Your task to perform on an android device: Open Android settings Image 0: 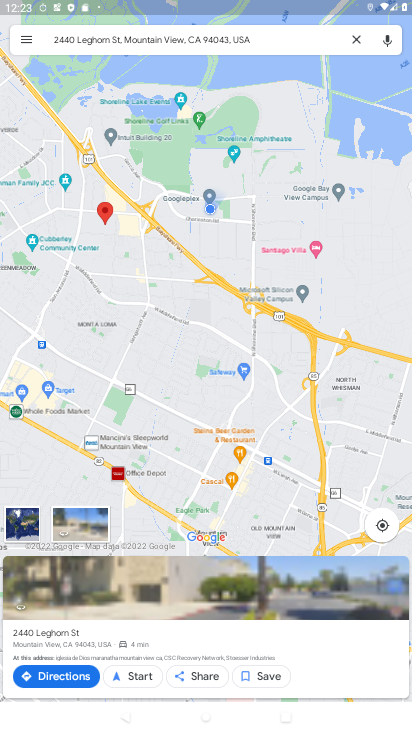
Step 0: press back button
Your task to perform on an android device: Open Android settings Image 1: 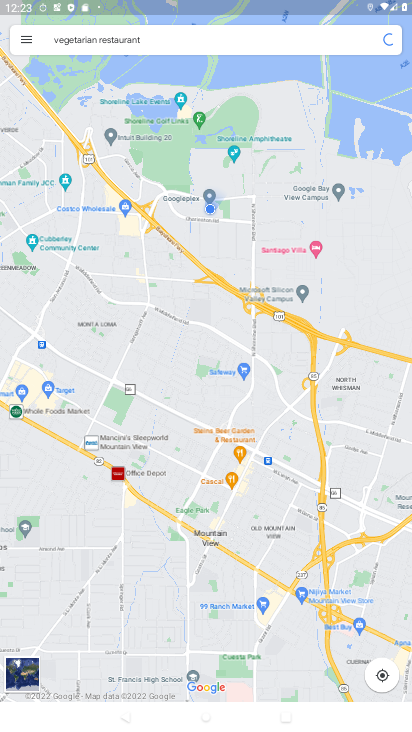
Step 1: press back button
Your task to perform on an android device: Open Android settings Image 2: 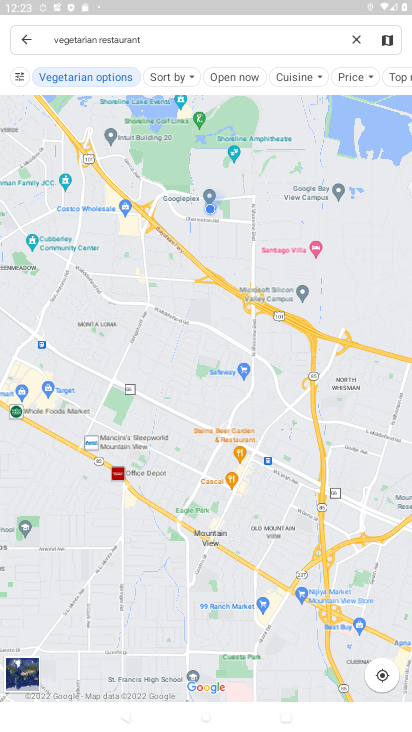
Step 2: press back button
Your task to perform on an android device: Open Android settings Image 3: 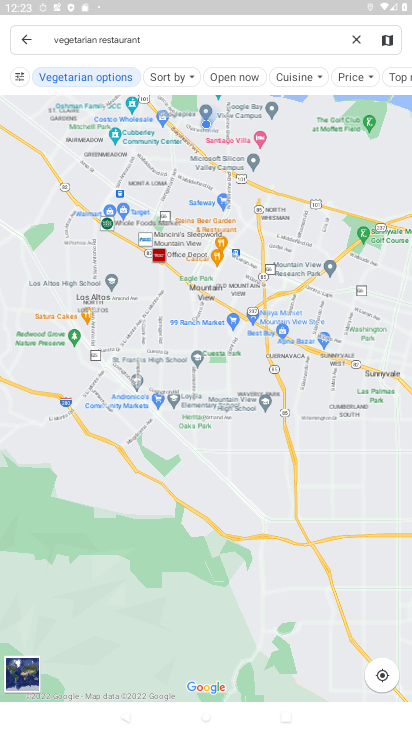
Step 3: press home button
Your task to perform on an android device: Open Android settings Image 4: 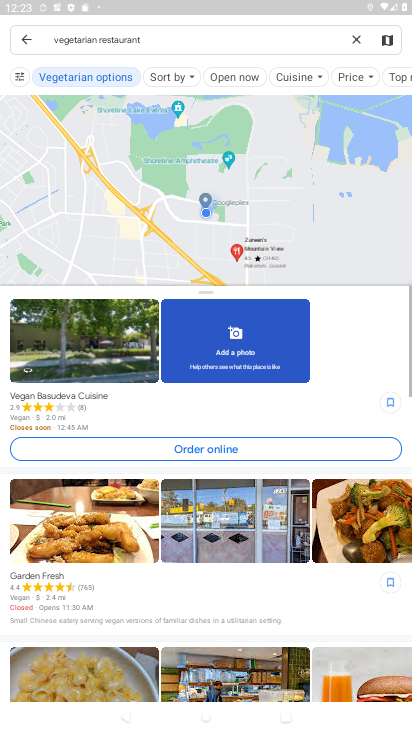
Step 4: click (222, 174)
Your task to perform on an android device: Open Android settings Image 5: 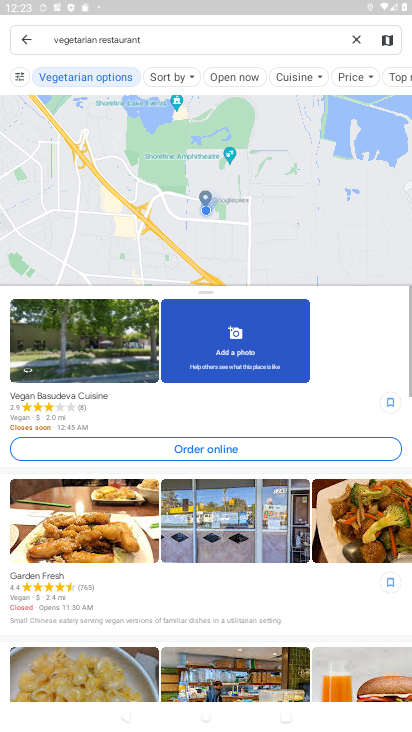
Step 5: press back button
Your task to perform on an android device: Open Android settings Image 6: 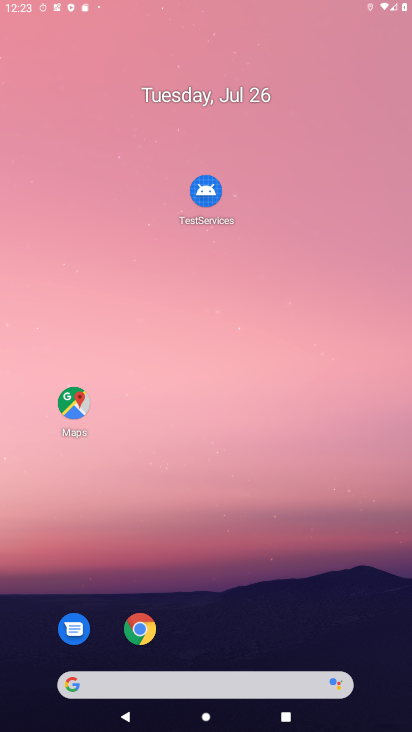
Step 6: press back button
Your task to perform on an android device: Open Android settings Image 7: 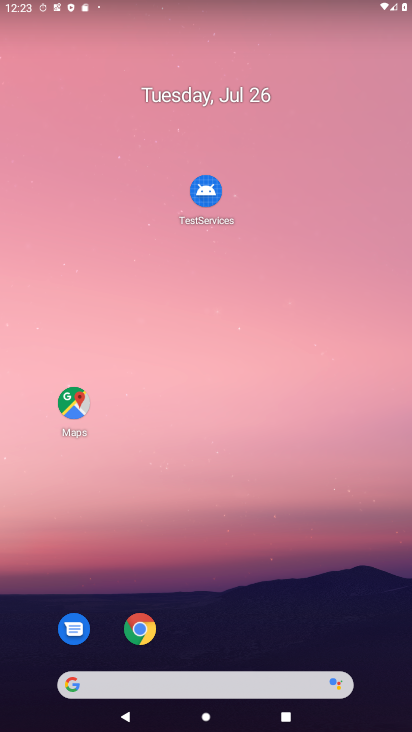
Step 7: press back button
Your task to perform on an android device: Open Android settings Image 8: 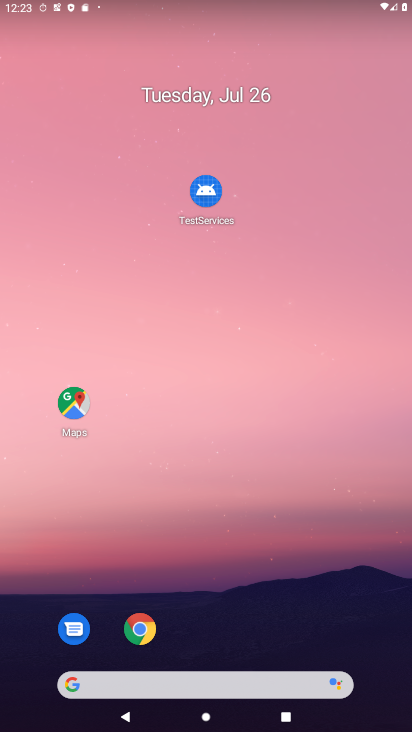
Step 8: drag from (177, 518) to (151, 6)
Your task to perform on an android device: Open Android settings Image 9: 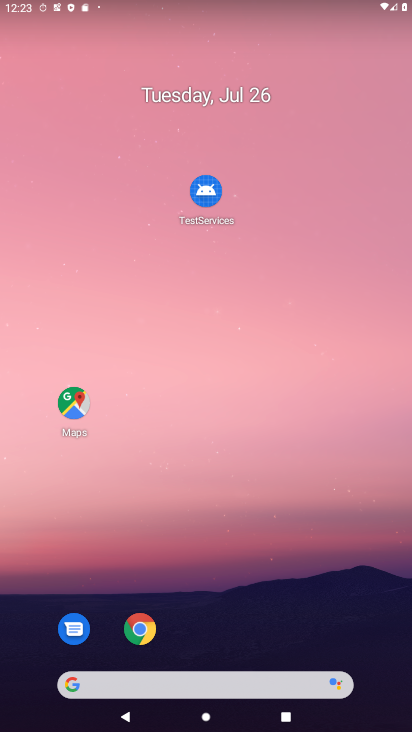
Step 9: drag from (268, 419) to (259, 58)
Your task to perform on an android device: Open Android settings Image 10: 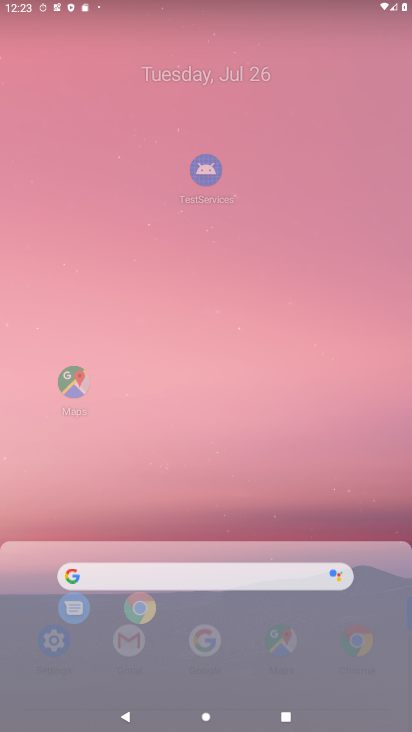
Step 10: drag from (247, 87) to (188, 162)
Your task to perform on an android device: Open Android settings Image 11: 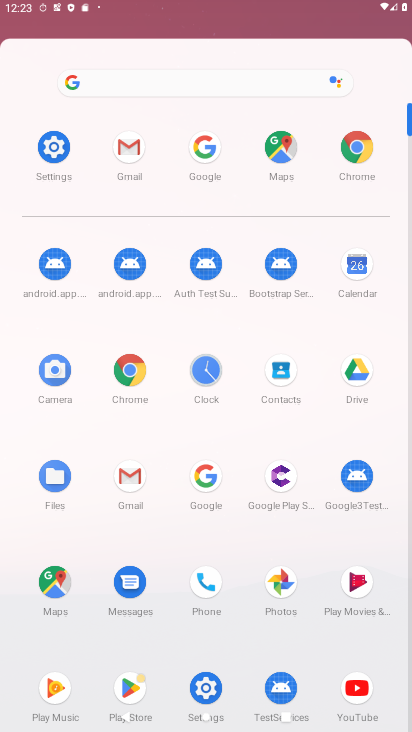
Step 11: drag from (237, 303) to (237, 54)
Your task to perform on an android device: Open Android settings Image 12: 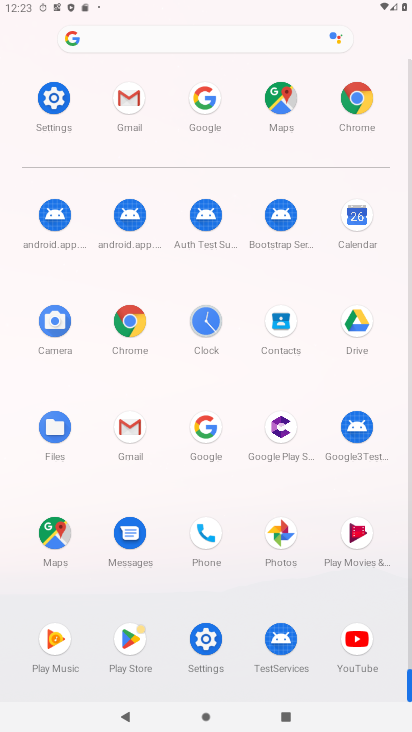
Step 12: click (217, 638)
Your task to perform on an android device: Open Android settings Image 13: 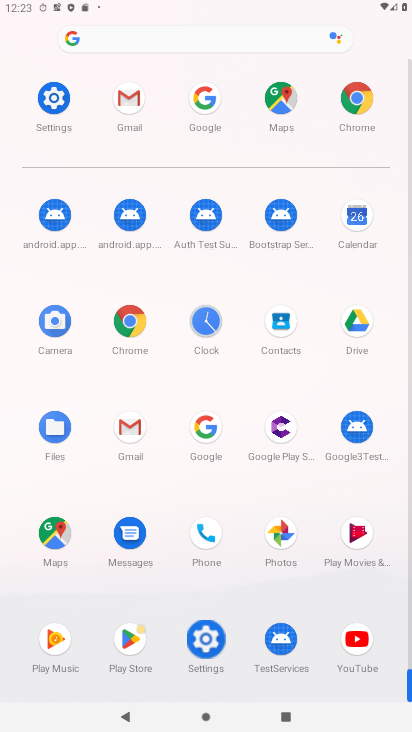
Step 13: click (217, 638)
Your task to perform on an android device: Open Android settings Image 14: 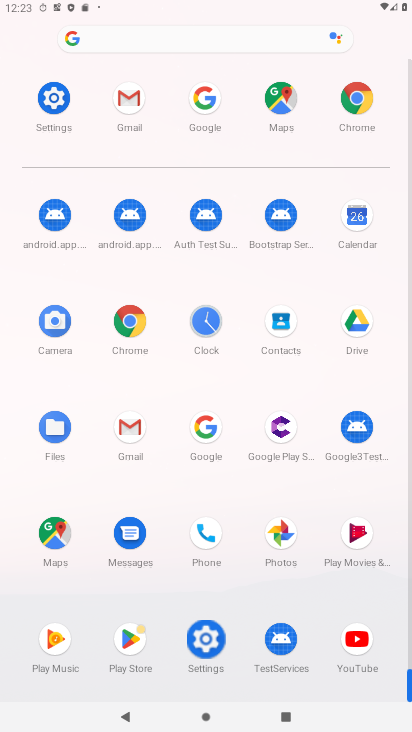
Step 14: click (216, 639)
Your task to perform on an android device: Open Android settings Image 15: 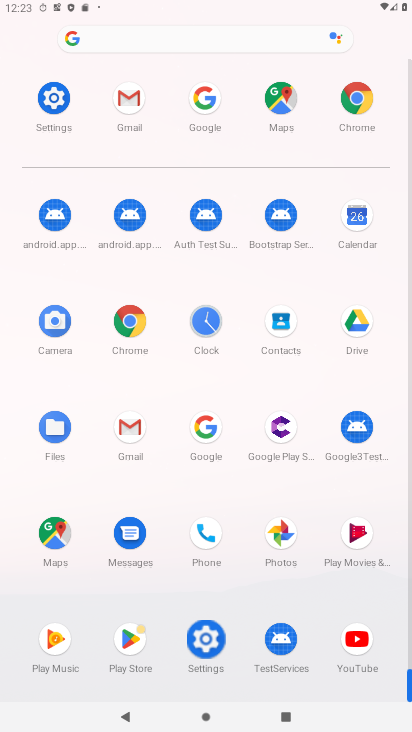
Step 15: click (216, 639)
Your task to perform on an android device: Open Android settings Image 16: 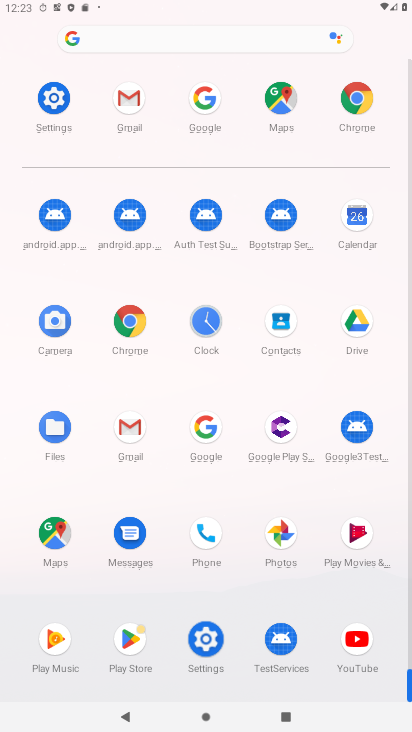
Step 16: click (221, 641)
Your task to perform on an android device: Open Android settings Image 17: 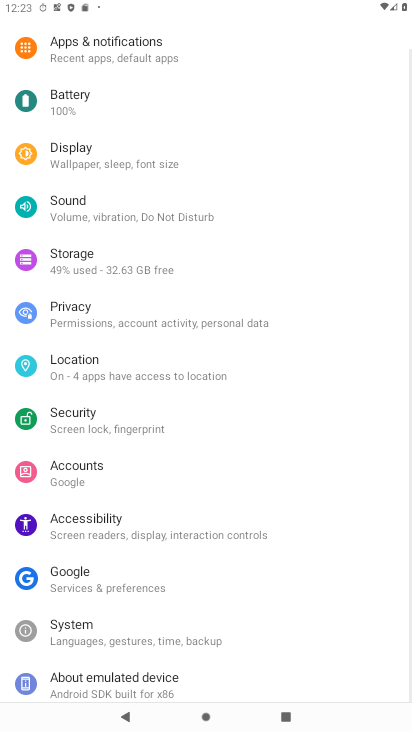
Step 17: click (204, 640)
Your task to perform on an android device: Open Android settings Image 18: 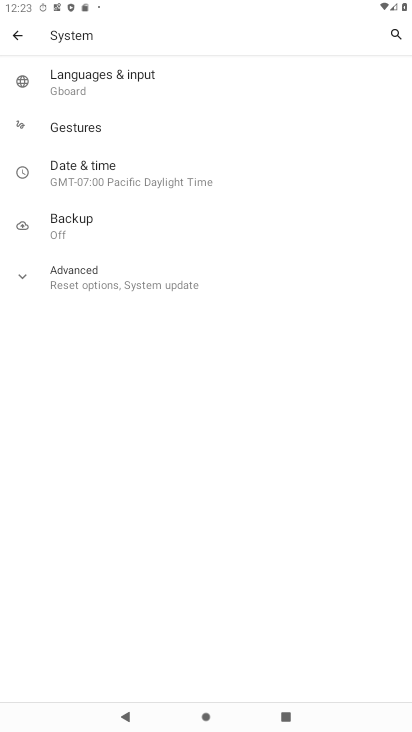
Step 18: click (18, 31)
Your task to perform on an android device: Open Android settings Image 19: 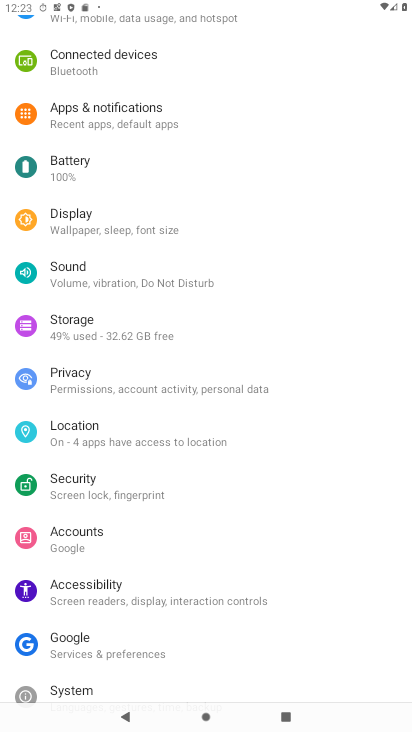
Step 19: drag from (91, 438) to (61, 187)
Your task to perform on an android device: Open Android settings Image 20: 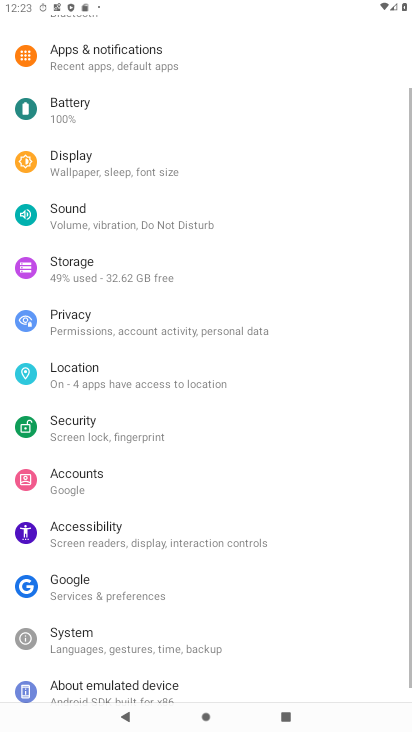
Step 20: drag from (109, 438) to (52, 132)
Your task to perform on an android device: Open Android settings Image 21: 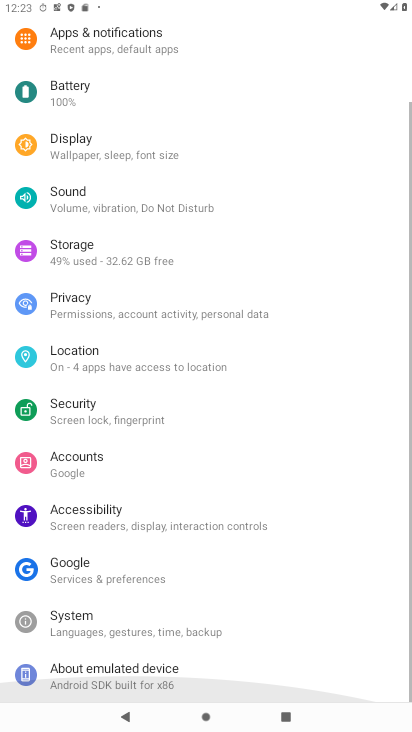
Step 21: drag from (120, 455) to (107, 75)
Your task to perform on an android device: Open Android settings Image 22: 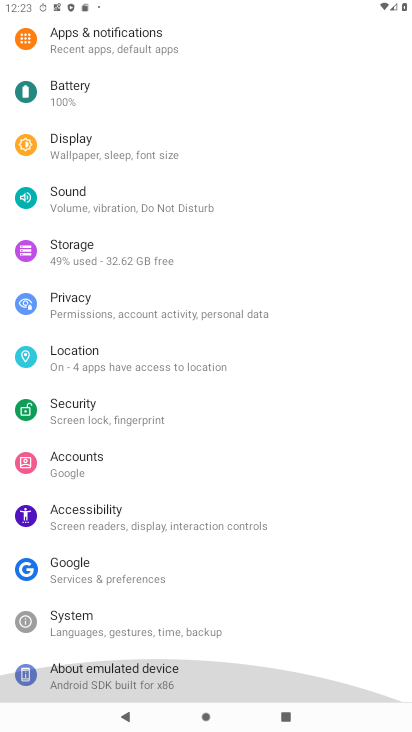
Step 22: drag from (105, 445) to (78, 129)
Your task to perform on an android device: Open Android settings Image 23: 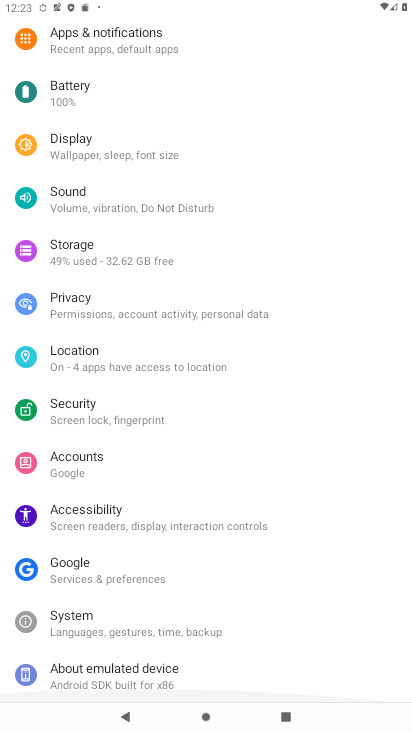
Step 23: click (89, 668)
Your task to perform on an android device: Open Android settings Image 24: 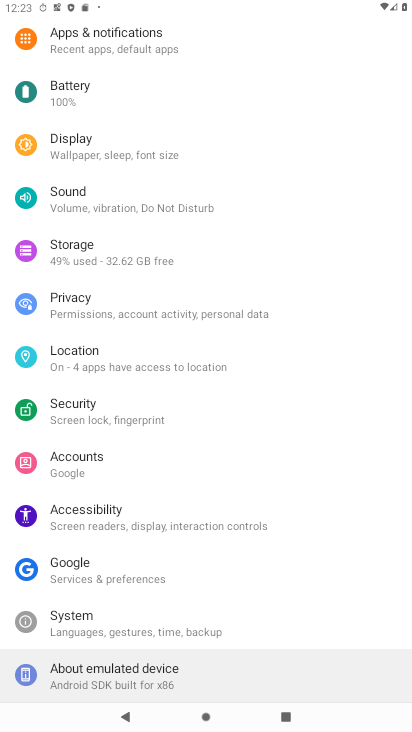
Step 24: click (90, 668)
Your task to perform on an android device: Open Android settings Image 25: 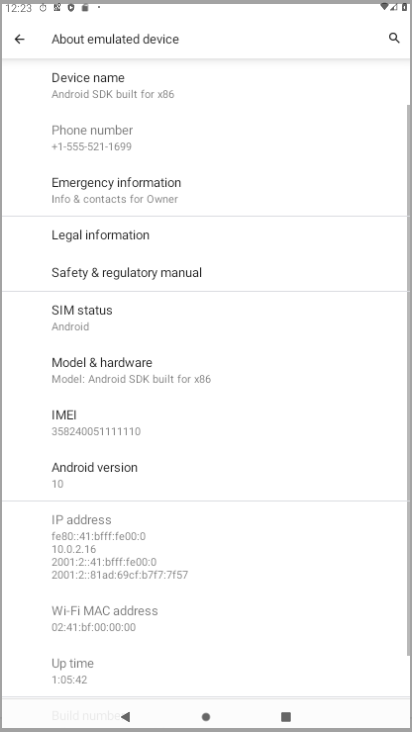
Step 25: click (94, 675)
Your task to perform on an android device: Open Android settings Image 26: 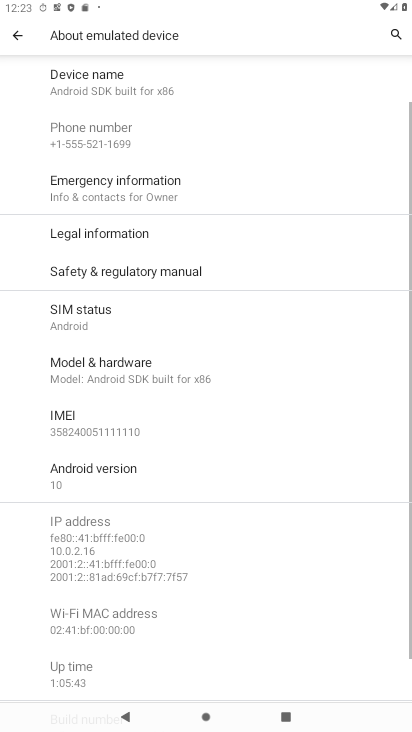
Step 26: task complete